Your task to perform on an android device: empty trash in the gmail app Image 0: 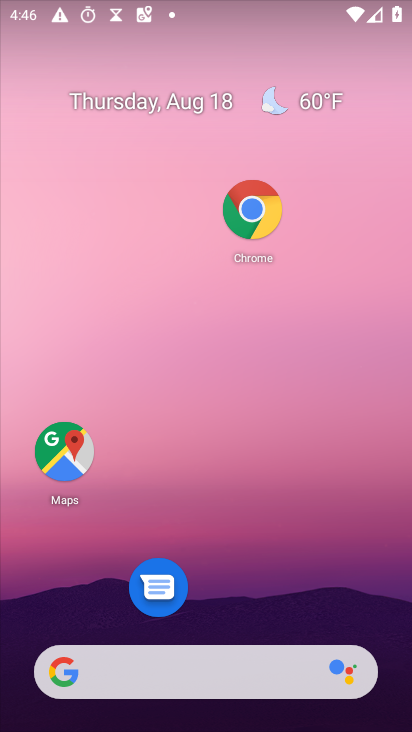
Step 0: drag from (345, 486) to (390, 87)
Your task to perform on an android device: empty trash in the gmail app Image 1: 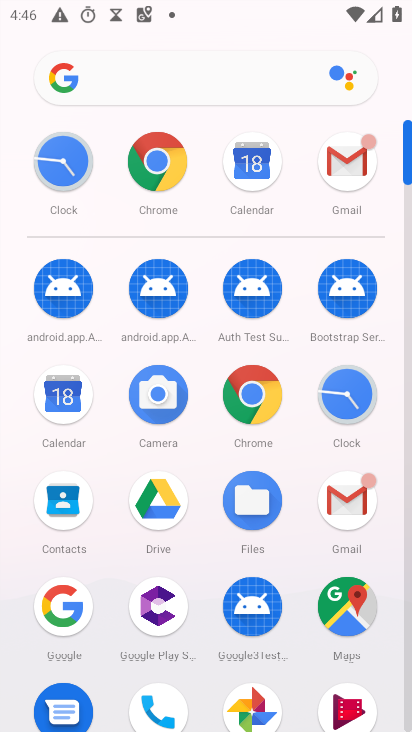
Step 1: click (353, 490)
Your task to perform on an android device: empty trash in the gmail app Image 2: 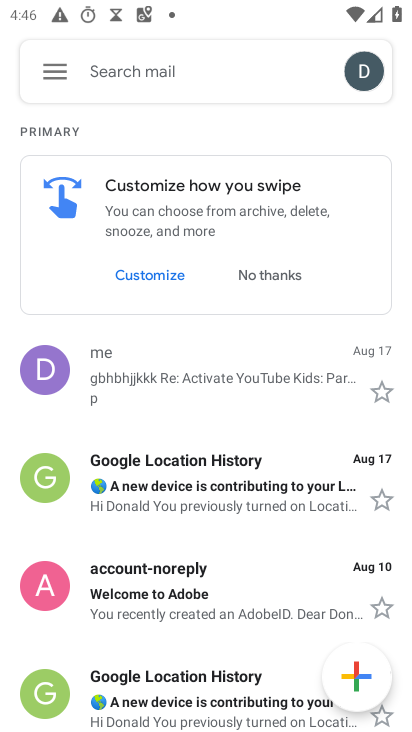
Step 2: click (54, 65)
Your task to perform on an android device: empty trash in the gmail app Image 3: 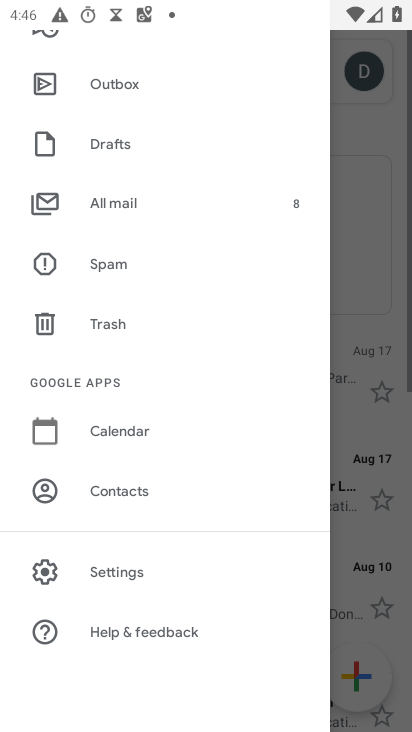
Step 3: click (118, 328)
Your task to perform on an android device: empty trash in the gmail app Image 4: 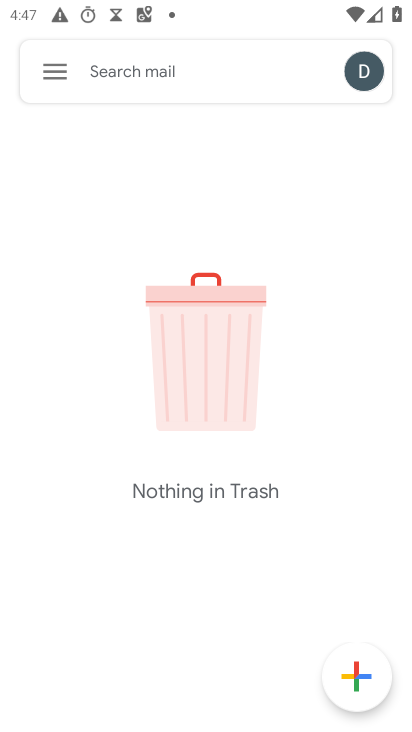
Step 4: task complete